Your task to perform on an android device: open chrome and create a bookmark for the current page Image 0: 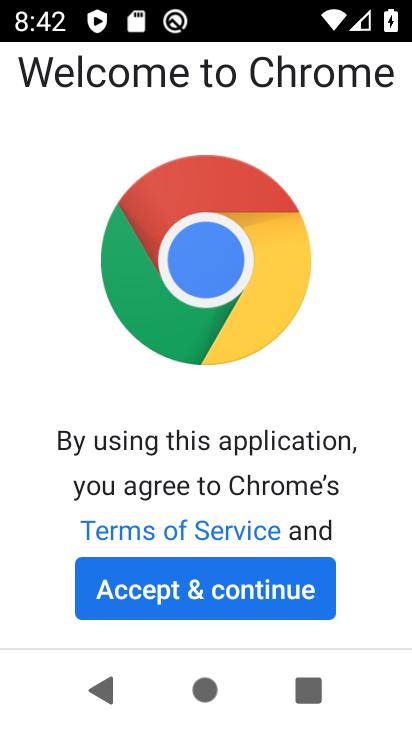
Step 0: click (190, 595)
Your task to perform on an android device: open chrome and create a bookmark for the current page Image 1: 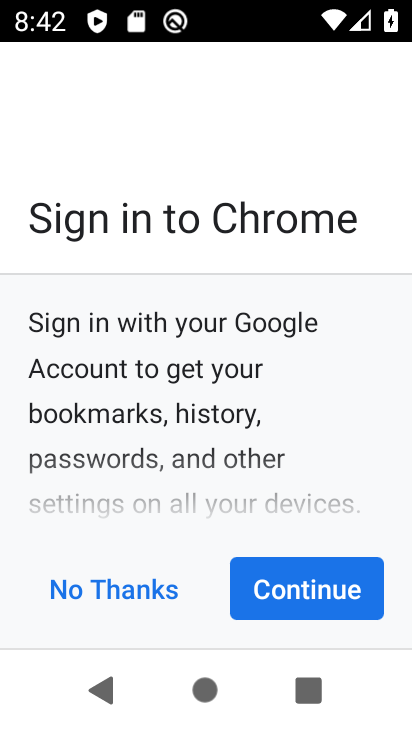
Step 1: click (283, 586)
Your task to perform on an android device: open chrome and create a bookmark for the current page Image 2: 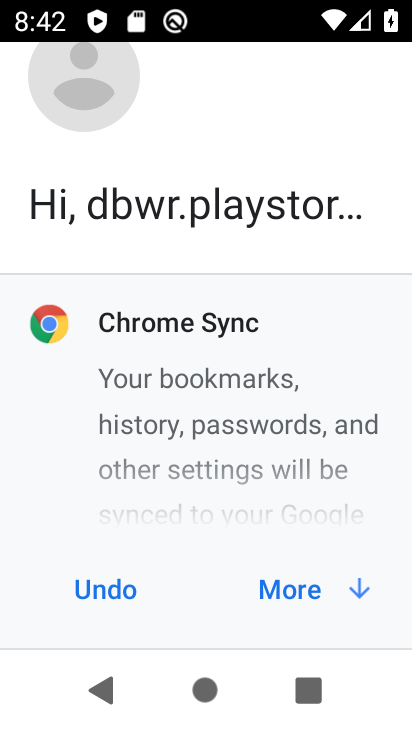
Step 2: click (365, 583)
Your task to perform on an android device: open chrome and create a bookmark for the current page Image 3: 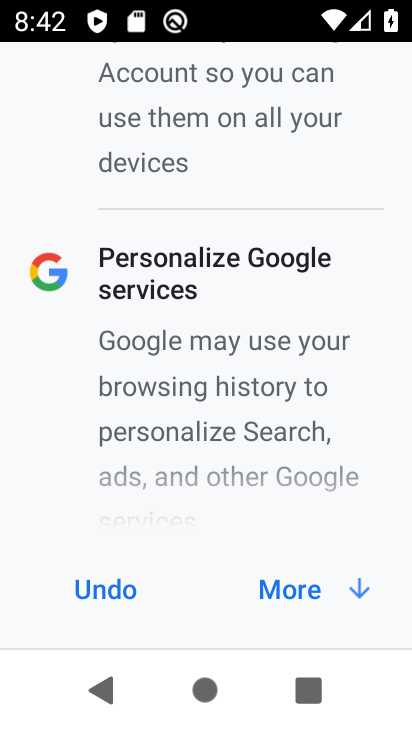
Step 3: click (321, 590)
Your task to perform on an android device: open chrome and create a bookmark for the current page Image 4: 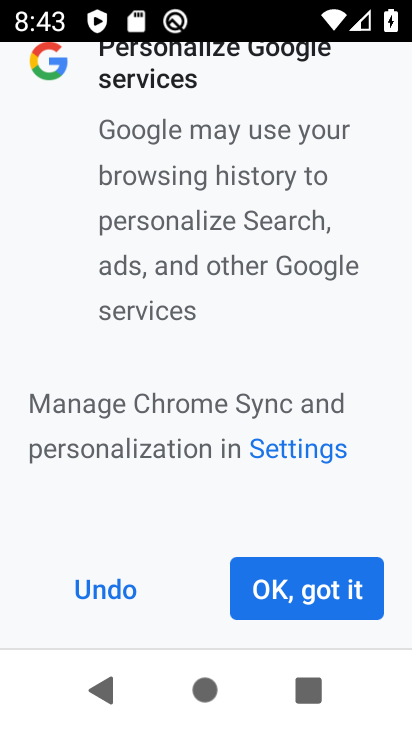
Step 4: click (315, 590)
Your task to perform on an android device: open chrome and create a bookmark for the current page Image 5: 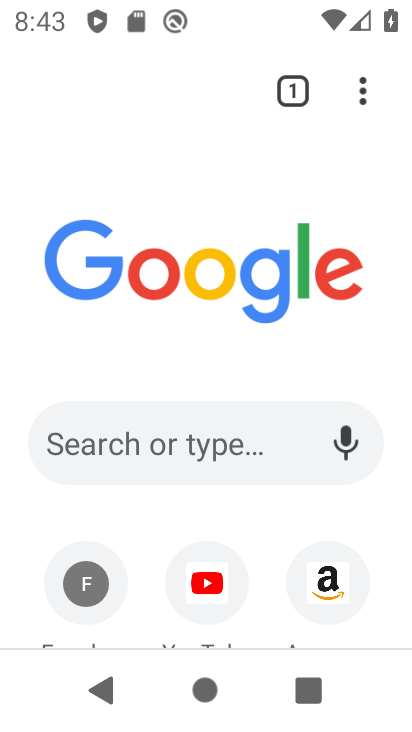
Step 5: click (362, 94)
Your task to perform on an android device: open chrome and create a bookmark for the current page Image 6: 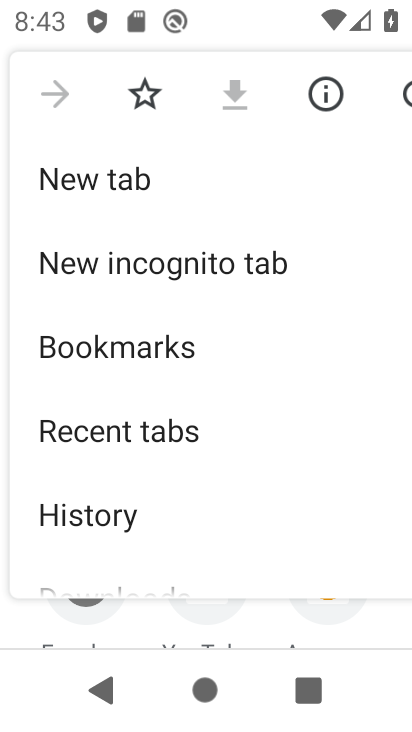
Step 6: click (143, 90)
Your task to perform on an android device: open chrome and create a bookmark for the current page Image 7: 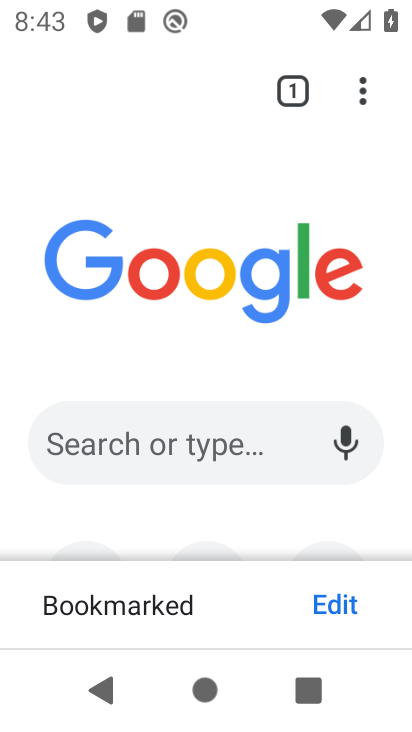
Step 7: task complete